Your task to perform on an android device: Open Google Chrome Image 0: 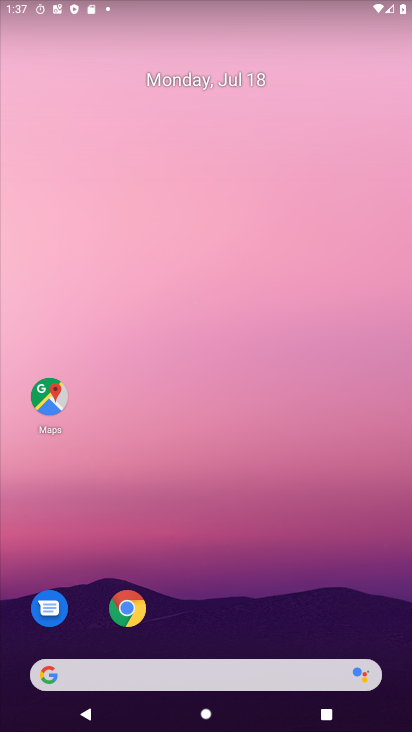
Step 0: click (129, 612)
Your task to perform on an android device: Open Google Chrome Image 1: 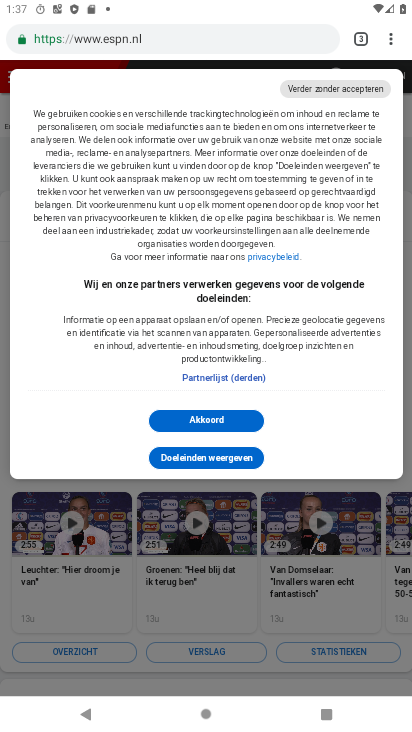
Step 1: task complete